Your task to perform on an android device: Show me popular videos on Youtube Image 0: 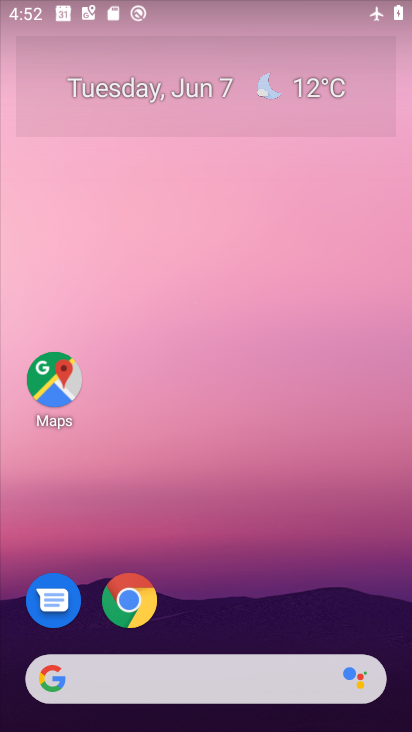
Step 0: drag from (299, 487) to (237, 81)
Your task to perform on an android device: Show me popular videos on Youtube Image 1: 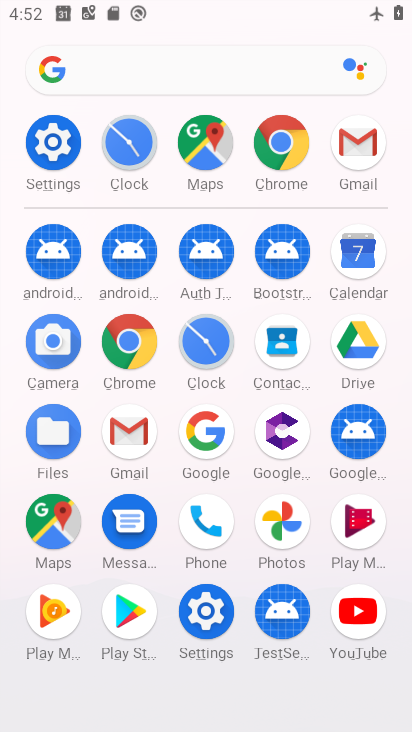
Step 1: click (369, 613)
Your task to perform on an android device: Show me popular videos on Youtube Image 2: 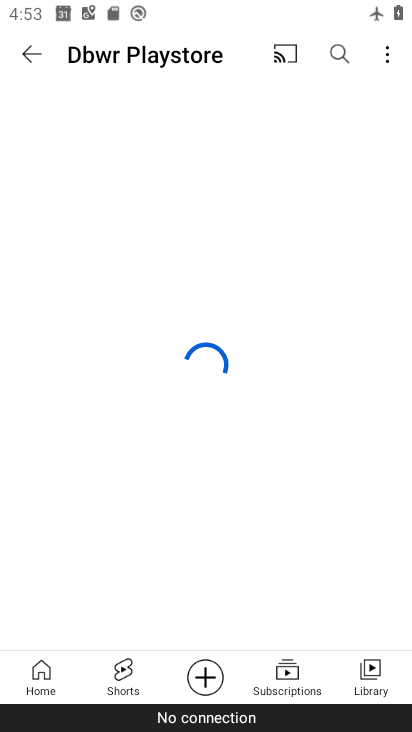
Step 2: task complete